Your task to perform on an android device: all mails in gmail Image 0: 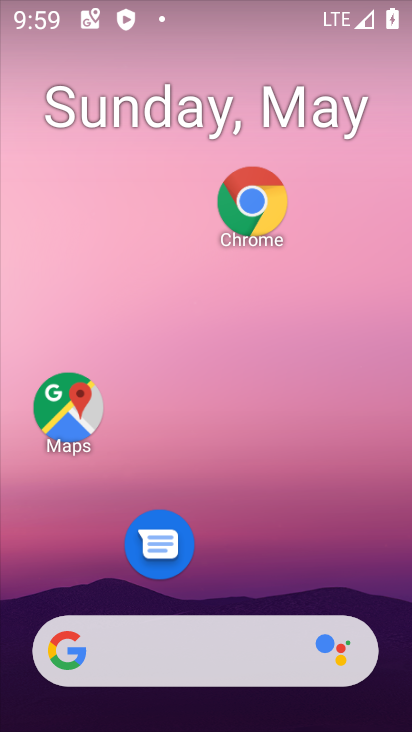
Step 0: drag from (292, 533) to (265, 48)
Your task to perform on an android device: all mails in gmail Image 1: 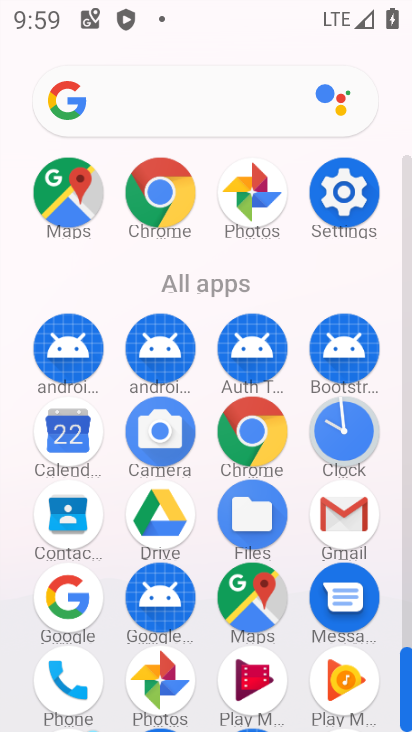
Step 1: click (336, 540)
Your task to perform on an android device: all mails in gmail Image 2: 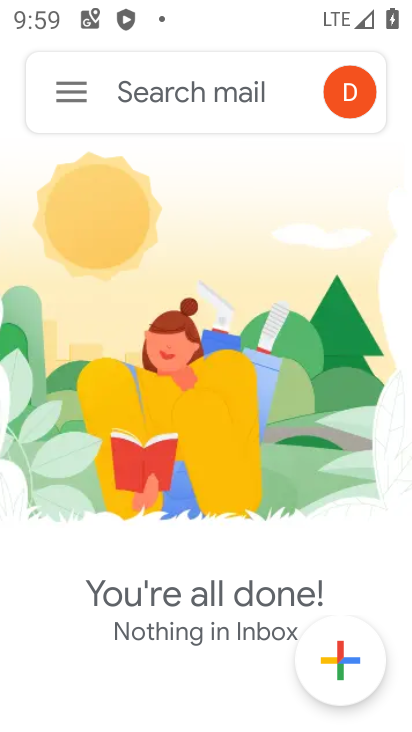
Step 2: click (69, 104)
Your task to perform on an android device: all mails in gmail Image 3: 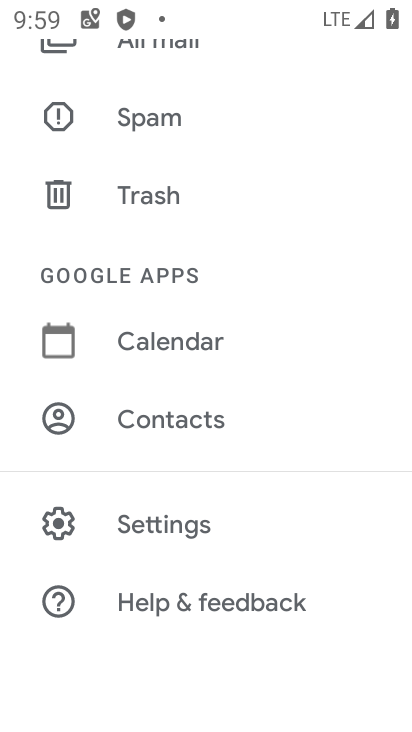
Step 3: click (128, 55)
Your task to perform on an android device: all mails in gmail Image 4: 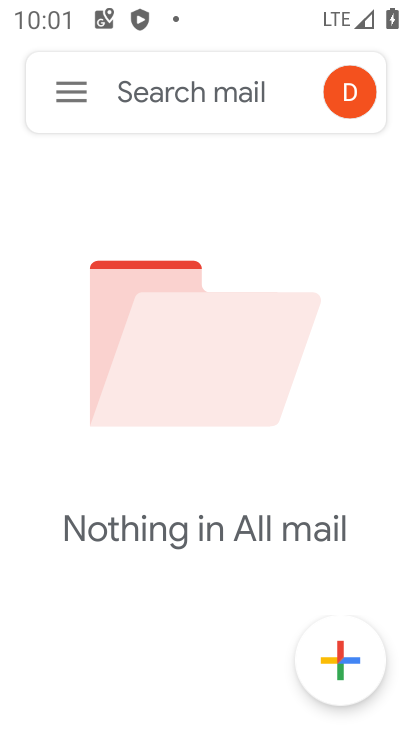
Step 4: task complete